Your task to perform on an android device: Go to Wikipedia Image 0: 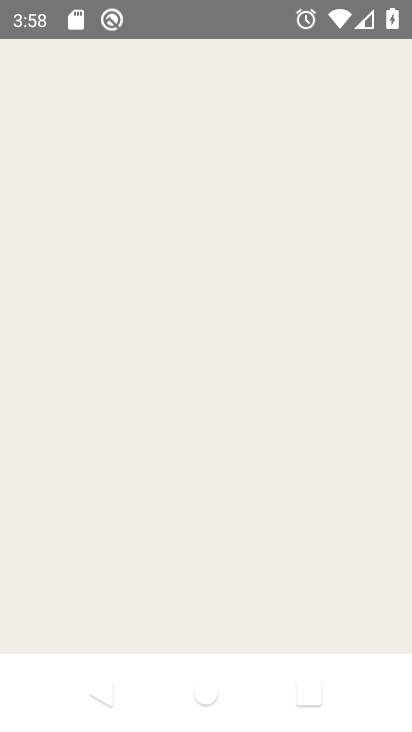
Step 0: click (237, 152)
Your task to perform on an android device: Go to Wikipedia Image 1: 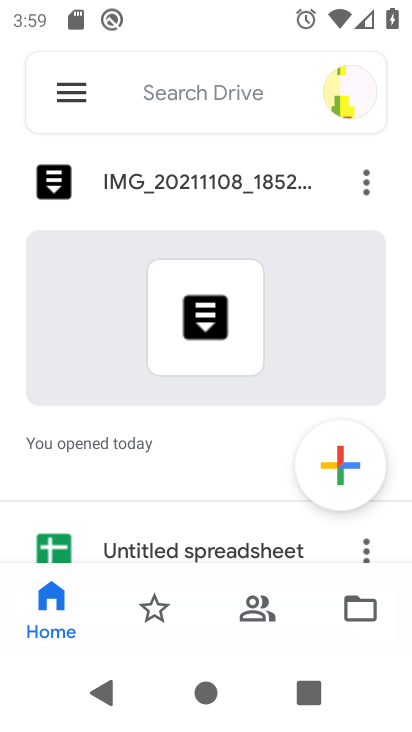
Step 1: press home button
Your task to perform on an android device: Go to Wikipedia Image 2: 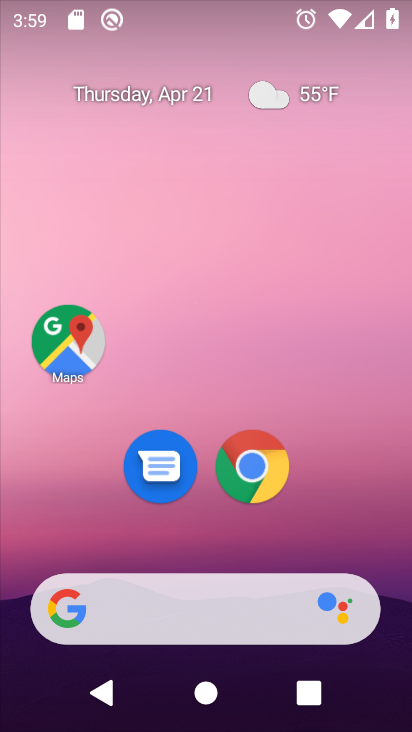
Step 2: click (274, 466)
Your task to perform on an android device: Go to Wikipedia Image 3: 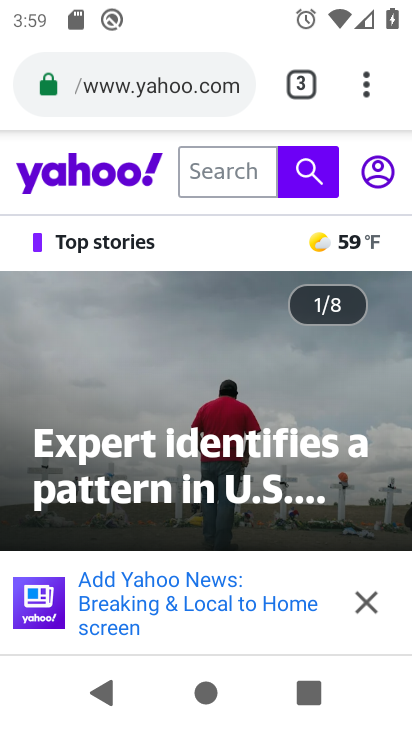
Step 3: click (297, 90)
Your task to perform on an android device: Go to Wikipedia Image 4: 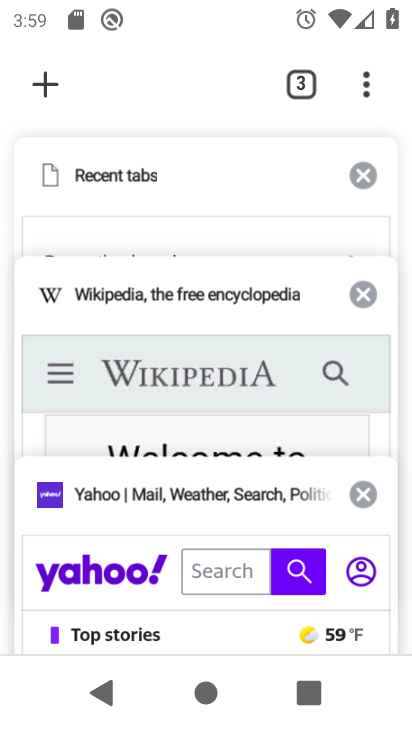
Step 4: click (179, 340)
Your task to perform on an android device: Go to Wikipedia Image 5: 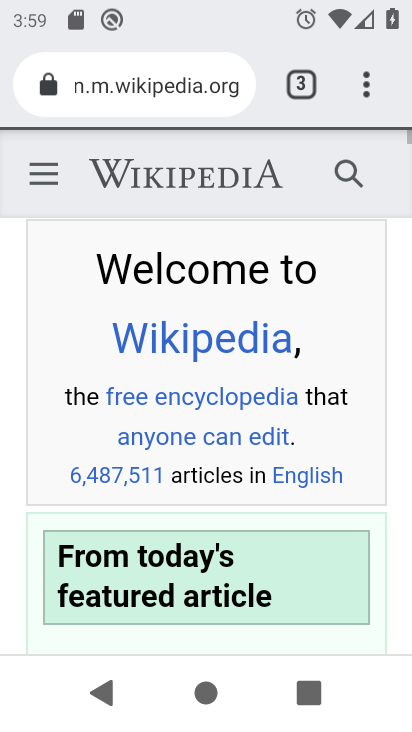
Step 5: task complete